Your task to perform on an android device: toggle airplane mode Image 0: 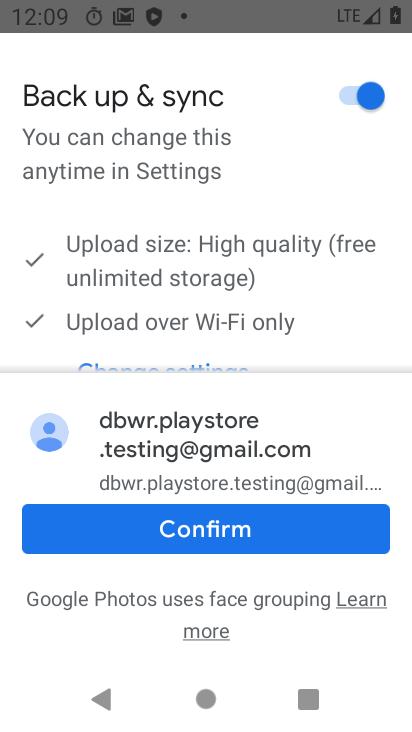
Step 0: press home button
Your task to perform on an android device: toggle airplane mode Image 1: 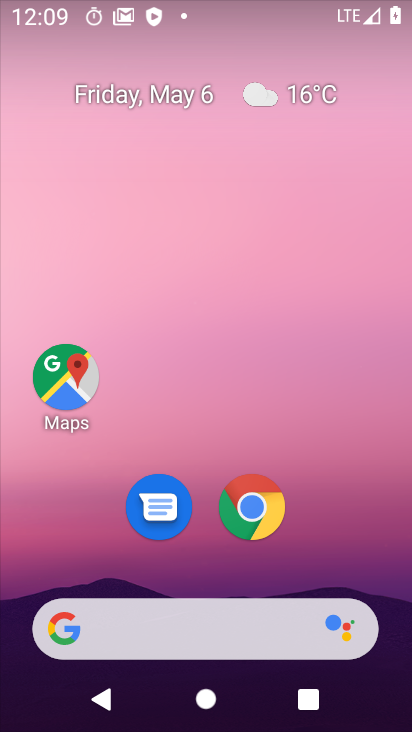
Step 1: drag from (212, 722) to (207, 176)
Your task to perform on an android device: toggle airplane mode Image 2: 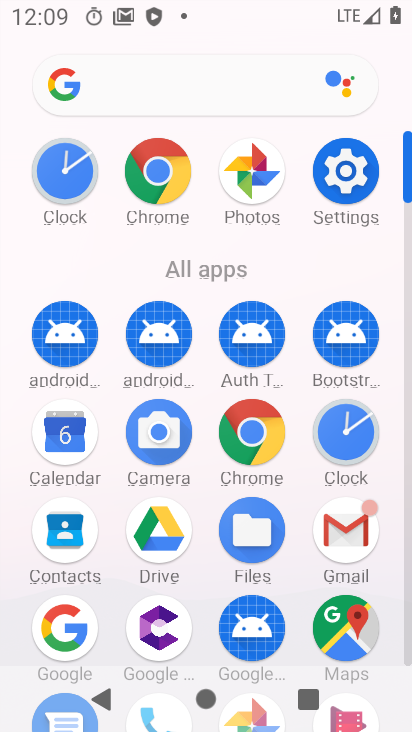
Step 2: click (342, 173)
Your task to perform on an android device: toggle airplane mode Image 3: 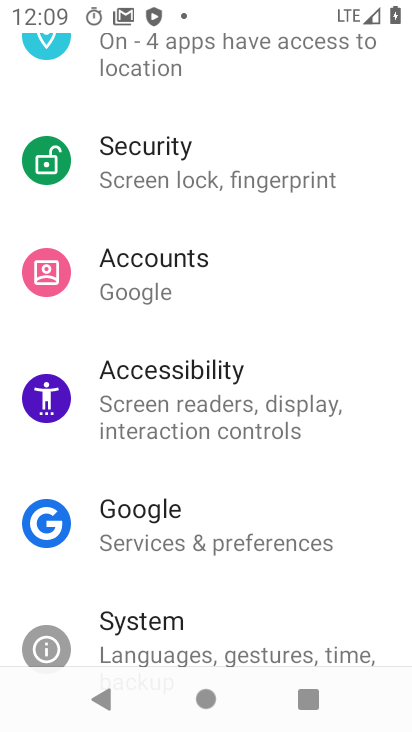
Step 3: drag from (216, 130) to (205, 583)
Your task to perform on an android device: toggle airplane mode Image 4: 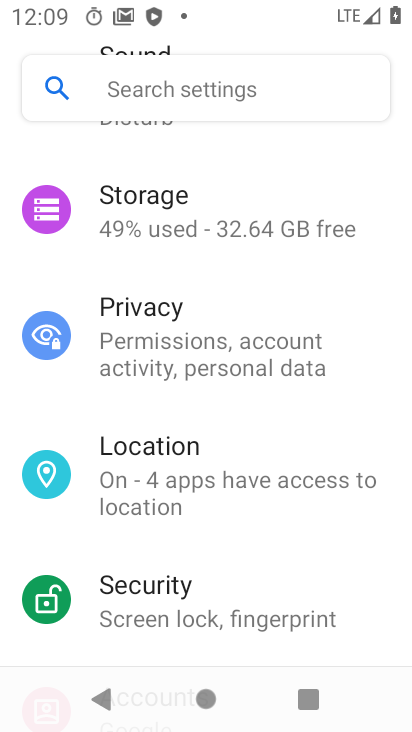
Step 4: drag from (240, 191) to (225, 537)
Your task to perform on an android device: toggle airplane mode Image 5: 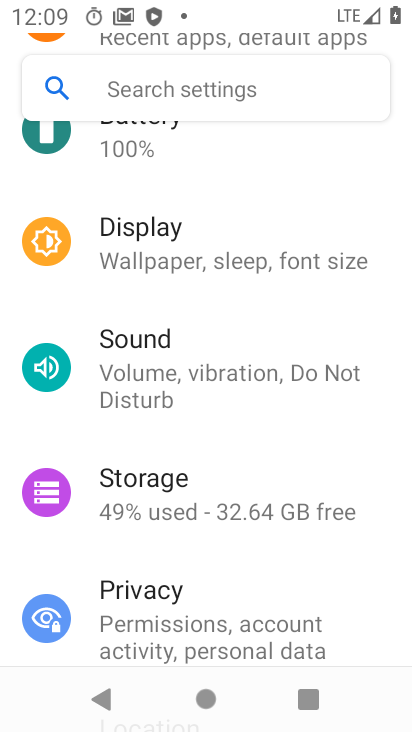
Step 5: drag from (231, 177) to (229, 478)
Your task to perform on an android device: toggle airplane mode Image 6: 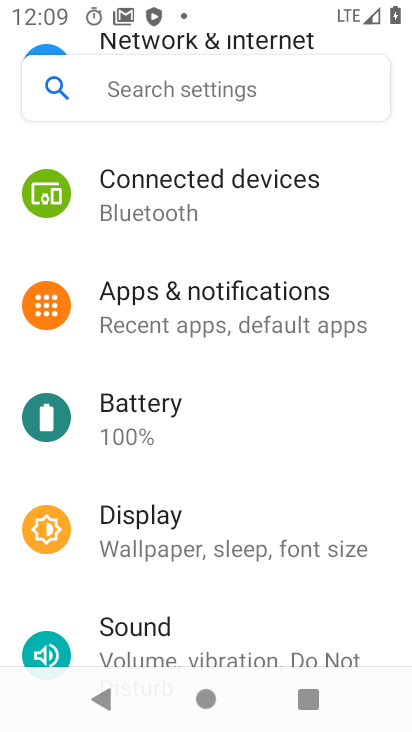
Step 6: drag from (235, 147) to (218, 528)
Your task to perform on an android device: toggle airplane mode Image 7: 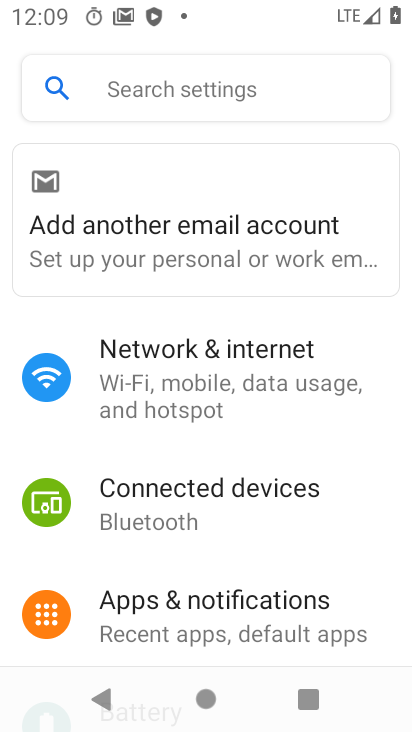
Step 7: click (163, 375)
Your task to perform on an android device: toggle airplane mode Image 8: 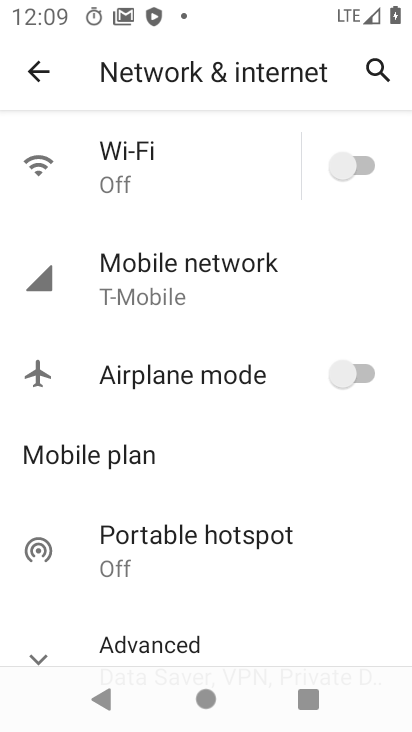
Step 8: click (364, 373)
Your task to perform on an android device: toggle airplane mode Image 9: 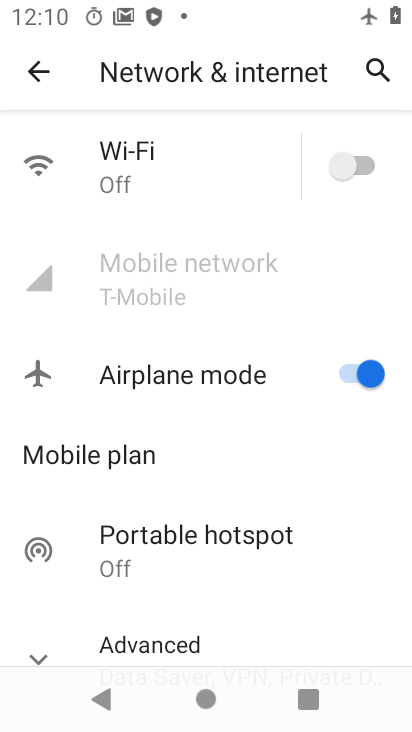
Step 9: task complete